Your task to perform on an android device: turn on sleep mode Image 0: 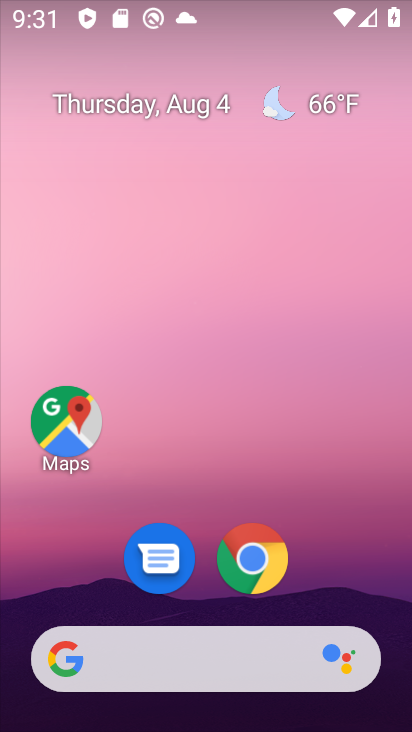
Step 0: drag from (335, 507) to (336, 3)
Your task to perform on an android device: turn on sleep mode Image 1: 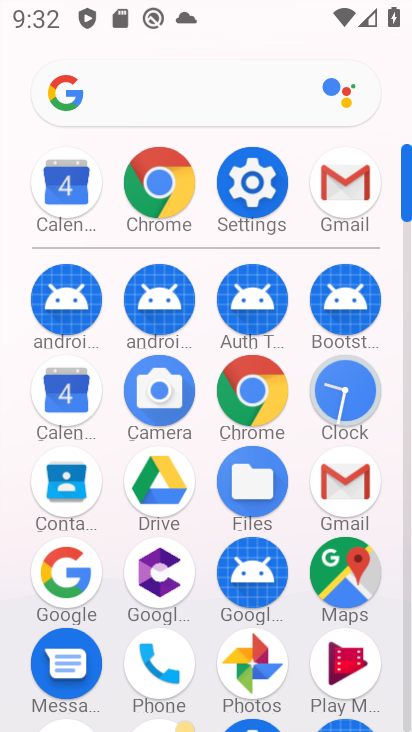
Step 1: drag from (210, 615) to (265, 293)
Your task to perform on an android device: turn on sleep mode Image 2: 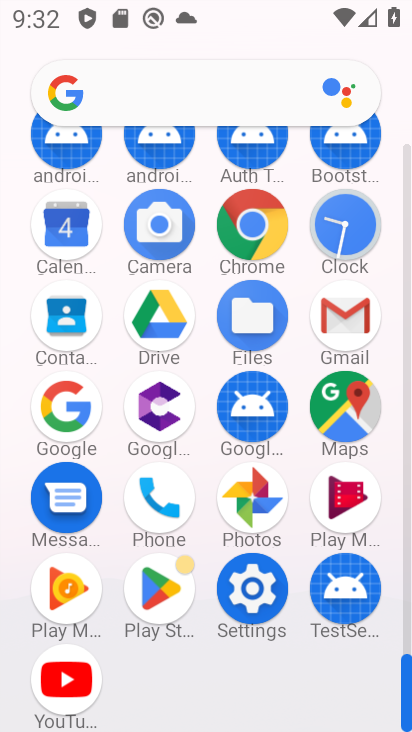
Step 2: click (251, 591)
Your task to perform on an android device: turn on sleep mode Image 3: 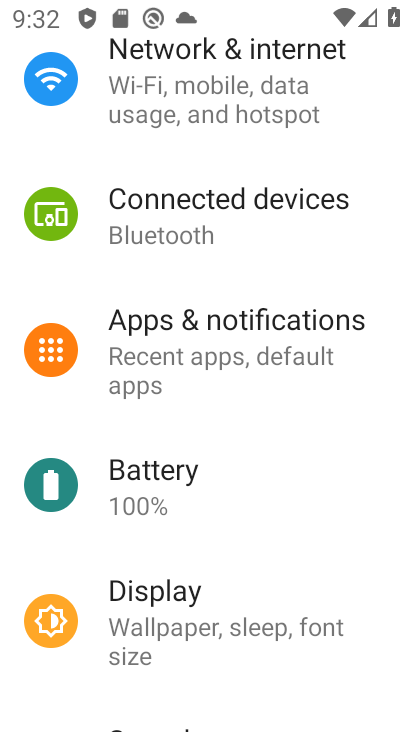
Step 3: click (152, 601)
Your task to perform on an android device: turn on sleep mode Image 4: 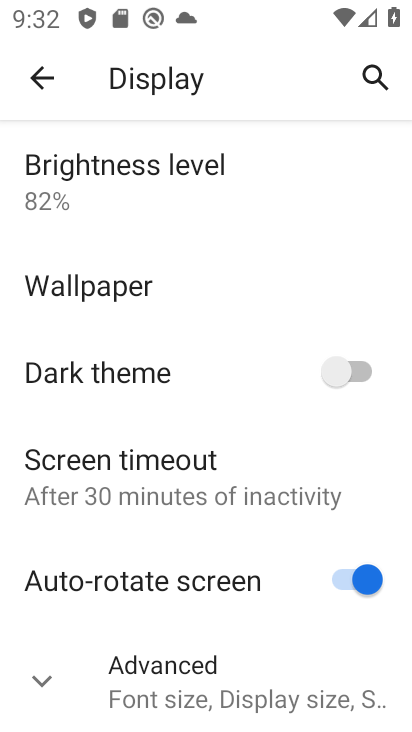
Step 4: click (201, 504)
Your task to perform on an android device: turn on sleep mode Image 5: 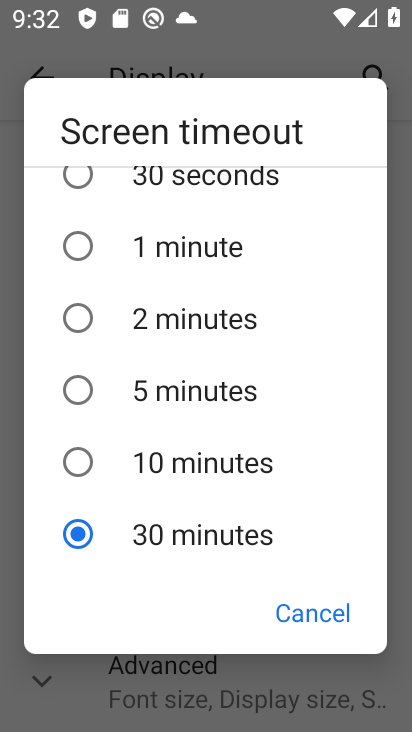
Step 5: task complete